Your task to perform on an android device: Go to battery settings Image 0: 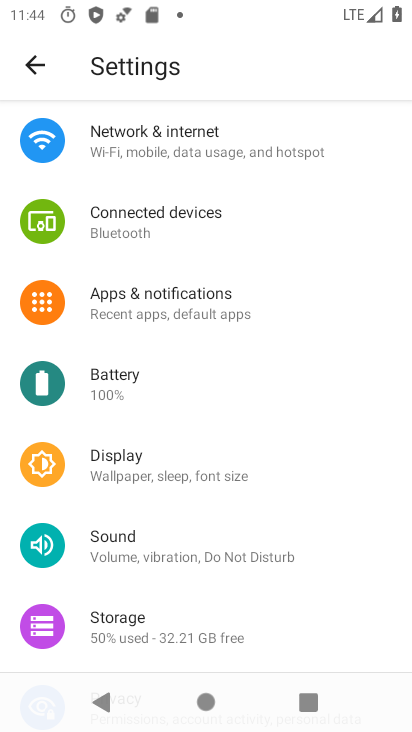
Step 0: press home button
Your task to perform on an android device: Go to battery settings Image 1: 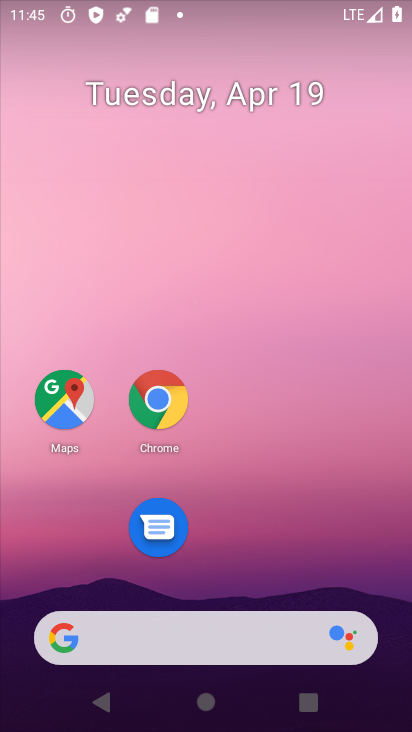
Step 1: drag from (244, 665) to (228, 230)
Your task to perform on an android device: Go to battery settings Image 2: 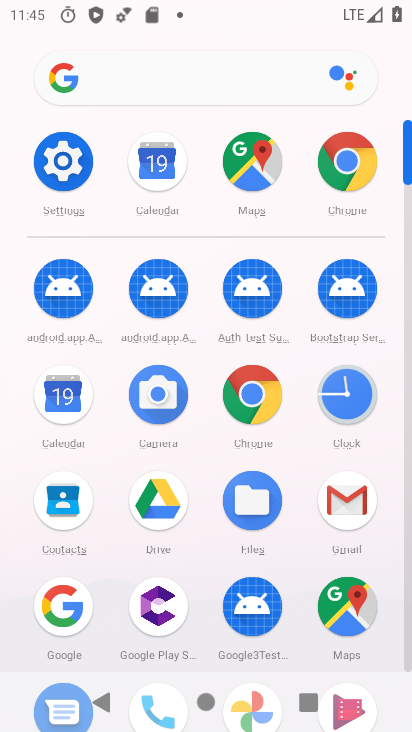
Step 2: click (68, 169)
Your task to perform on an android device: Go to battery settings Image 3: 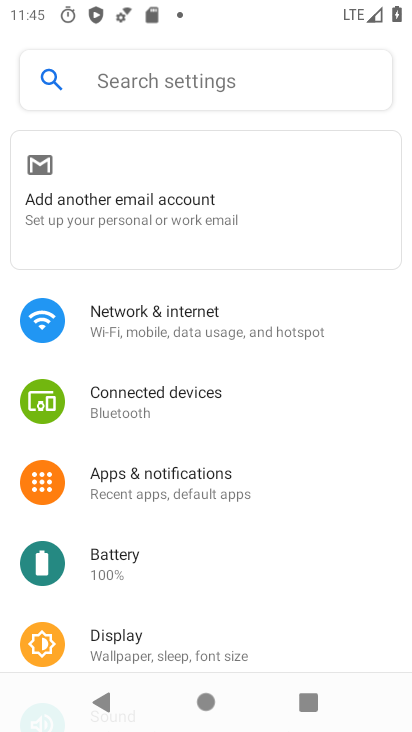
Step 3: click (139, 79)
Your task to perform on an android device: Go to battery settings Image 4: 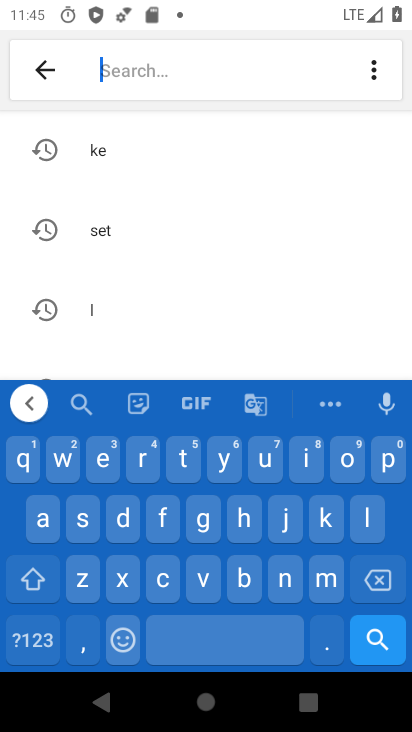
Step 4: click (46, 67)
Your task to perform on an android device: Go to battery settings Image 5: 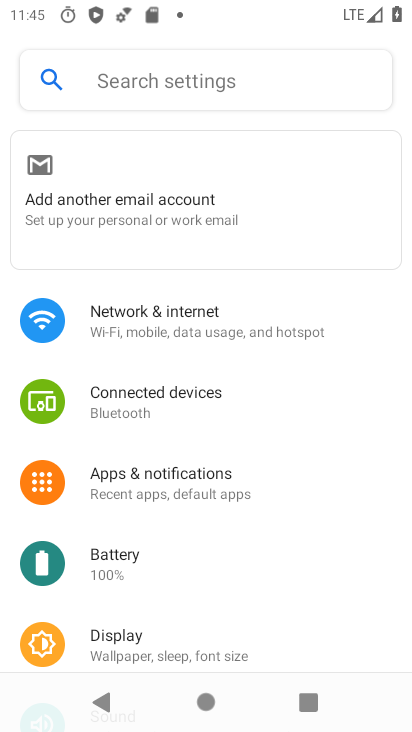
Step 5: click (126, 558)
Your task to perform on an android device: Go to battery settings Image 6: 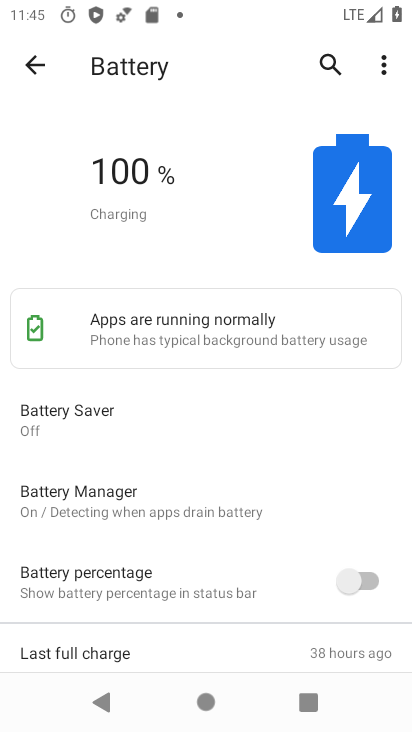
Step 6: task complete